Your task to perform on an android device: toggle wifi Image 0: 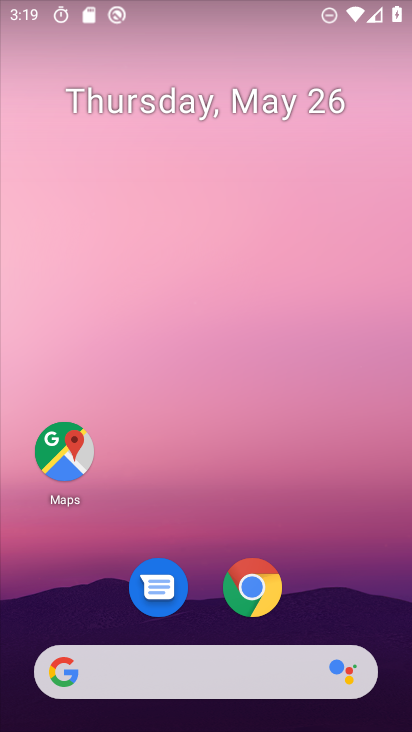
Step 0: drag from (330, 498) to (316, 179)
Your task to perform on an android device: toggle wifi Image 1: 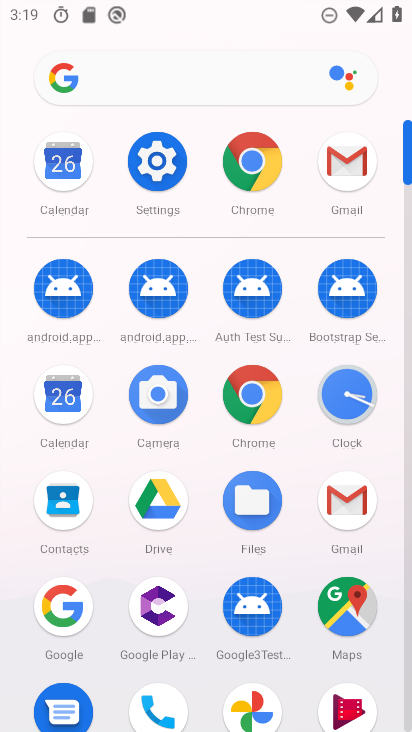
Step 1: click (166, 177)
Your task to perform on an android device: toggle wifi Image 2: 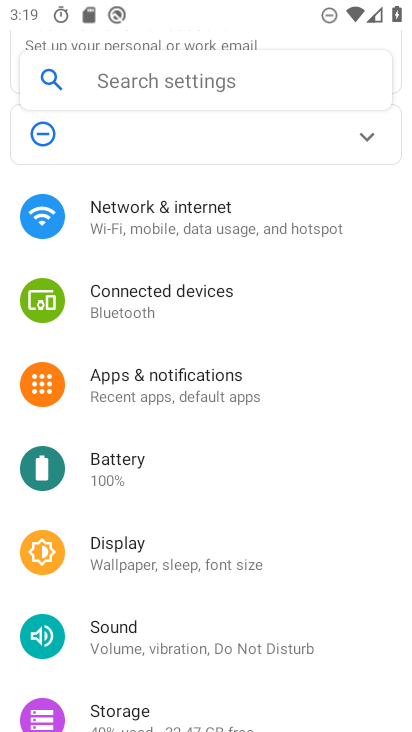
Step 2: click (159, 208)
Your task to perform on an android device: toggle wifi Image 3: 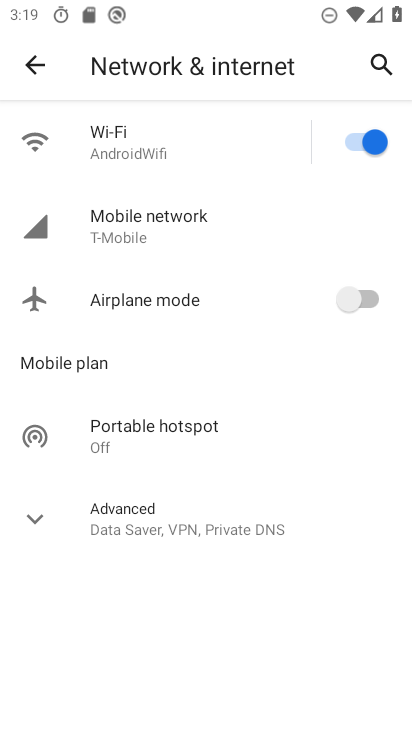
Step 3: click (355, 140)
Your task to perform on an android device: toggle wifi Image 4: 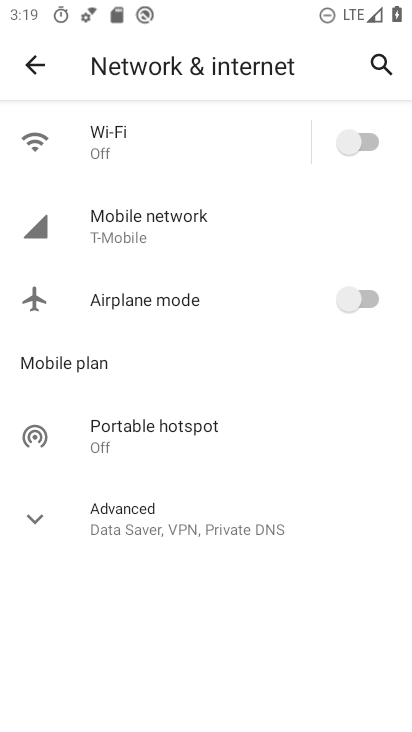
Step 4: task complete